Your task to perform on an android device: toggle priority inbox in the gmail app Image 0: 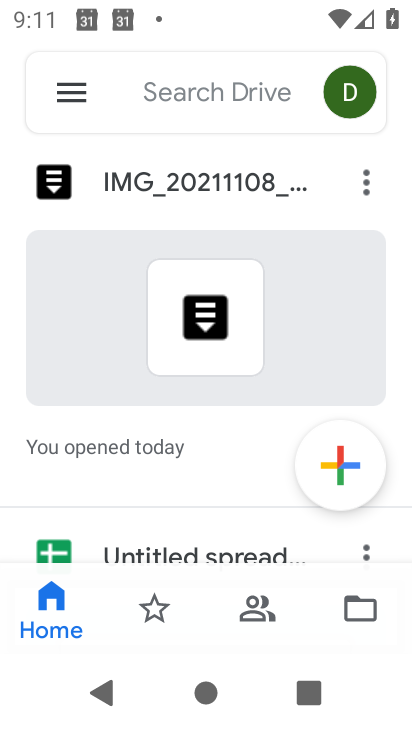
Step 0: press home button
Your task to perform on an android device: toggle priority inbox in the gmail app Image 1: 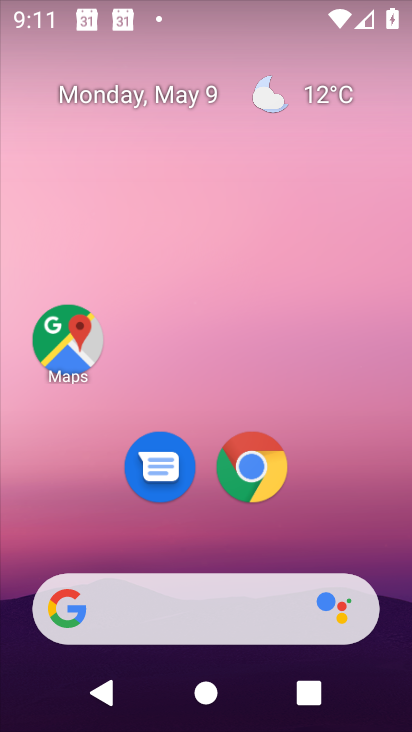
Step 1: drag from (358, 544) to (403, 1)
Your task to perform on an android device: toggle priority inbox in the gmail app Image 2: 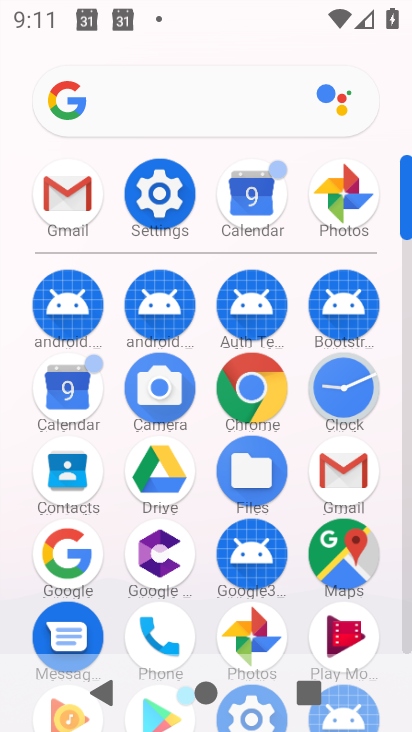
Step 2: click (46, 222)
Your task to perform on an android device: toggle priority inbox in the gmail app Image 3: 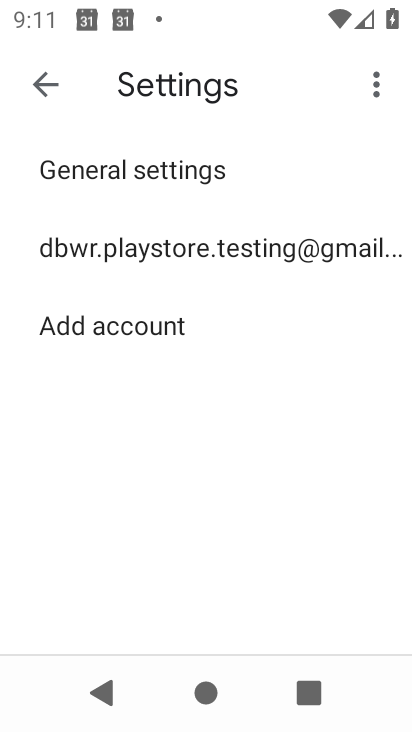
Step 3: click (80, 256)
Your task to perform on an android device: toggle priority inbox in the gmail app Image 4: 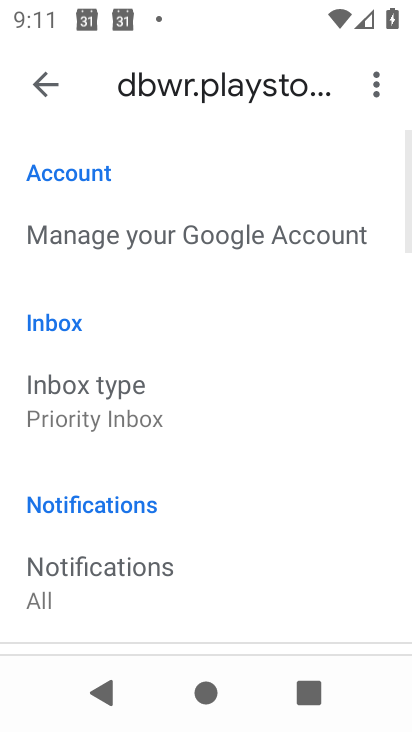
Step 4: click (123, 416)
Your task to perform on an android device: toggle priority inbox in the gmail app Image 5: 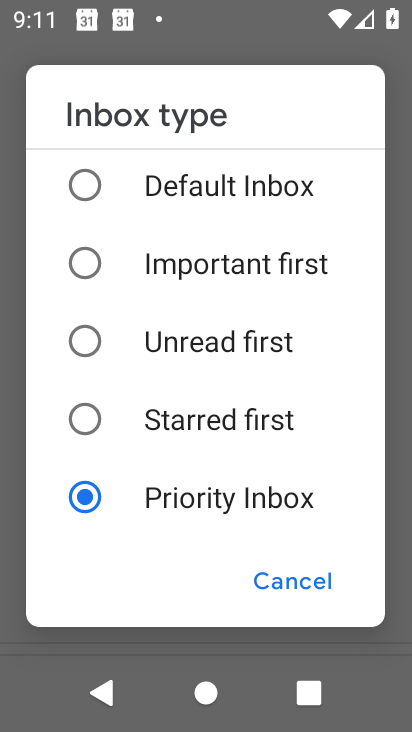
Step 5: click (88, 346)
Your task to perform on an android device: toggle priority inbox in the gmail app Image 6: 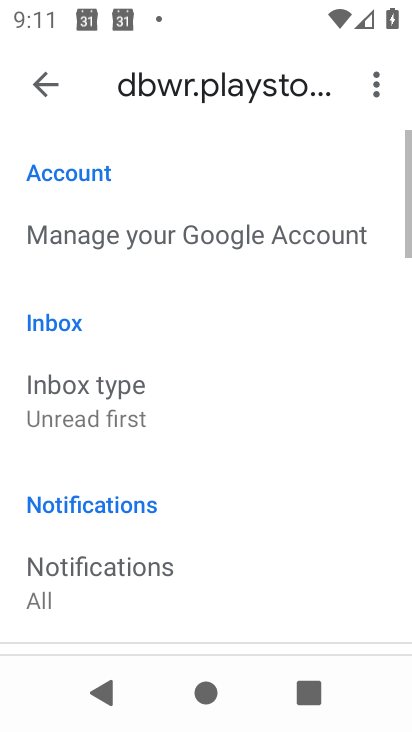
Step 6: task complete